Your task to perform on an android device: see tabs open on other devices in the chrome app Image 0: 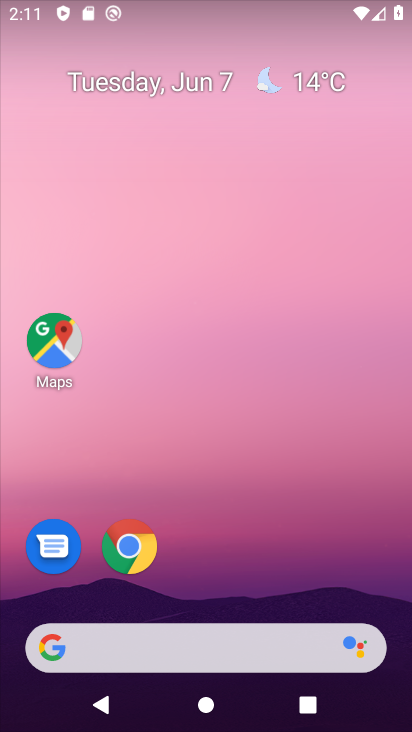
Step 0: click (135, 562)
Your task to perform on an android device: see tabs open on other devices in the chrome app Image 1: 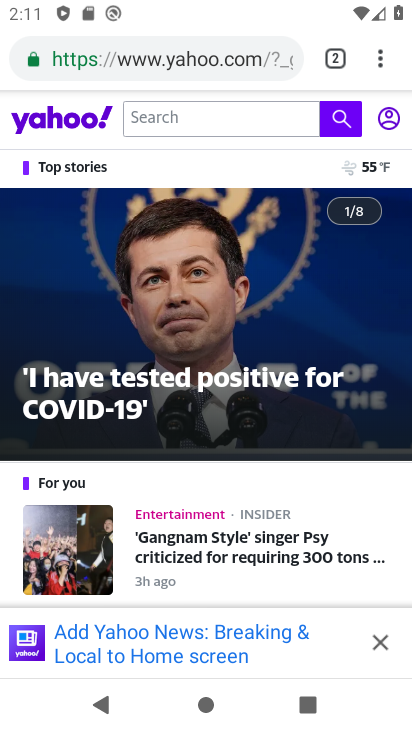
Step 1: click (398, 61)
Your task to perform on an android device: see tabs open on other devices in the chrome app Image 2: 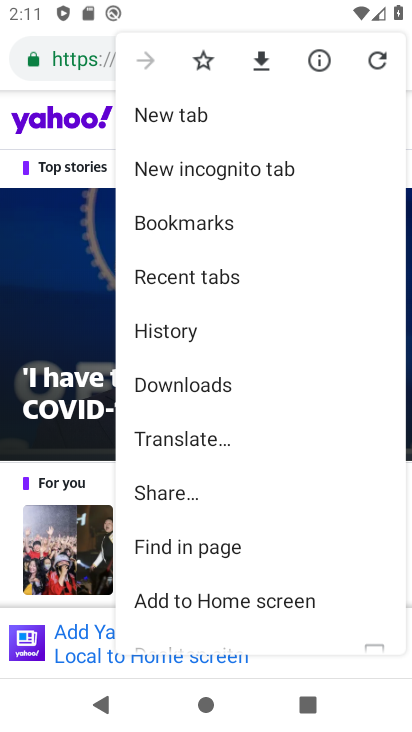
Step 2: click (140, 263)
Your task to perform on an android device: see tabs open on other devices in the chrome app Image 3: 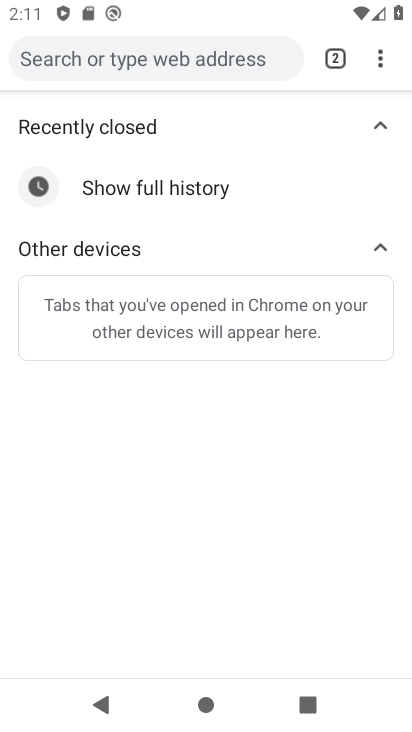
Step 3: task complete